Your task to perform on an android device: Open calendar and show me the second week of next month Image 0: 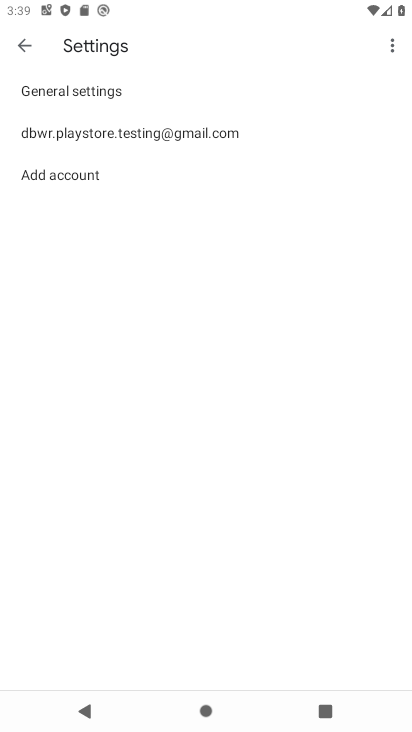
Step 0: press home button
Your task to perform on an android device: Open calendar and show me the second week of next month Image 1: 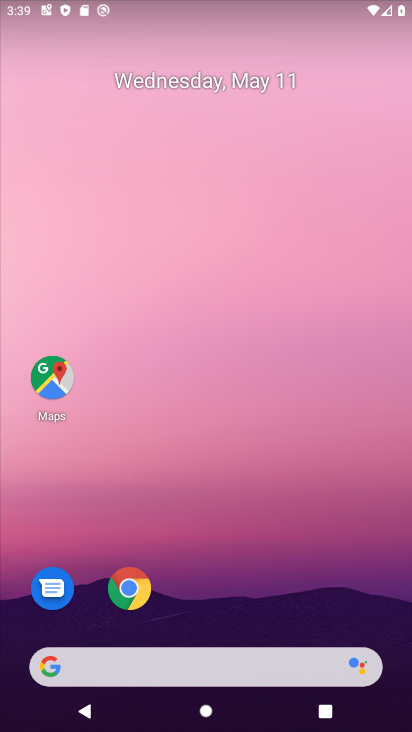
Step 1: drag from (233, 538) to (244, 122)
Your task to perform on an android device: Open calendar and show me the second week of next month Image 2: 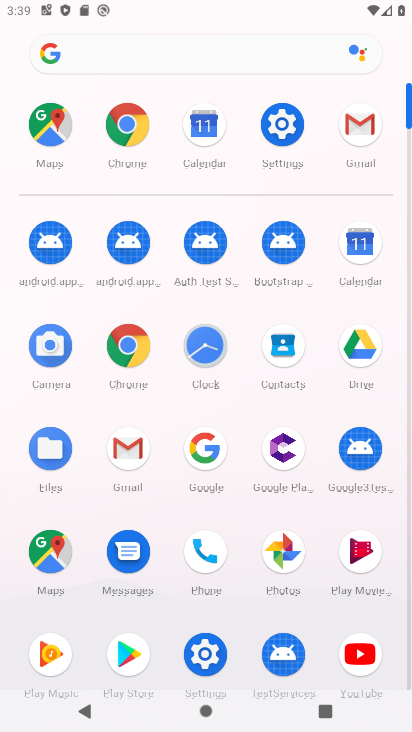
Step 2: click (358, 261)
Your task to perform on an android device: Open calendar and show me the second week of next month Image 3: 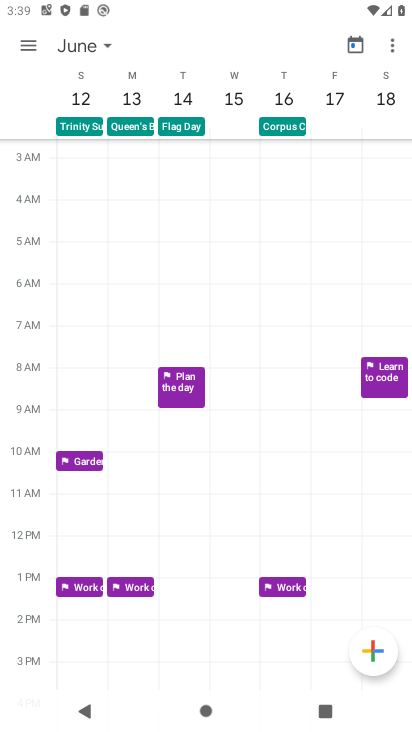
Step 3: task complete